Your task to perform on an android device: Go to battery settings Image 0: 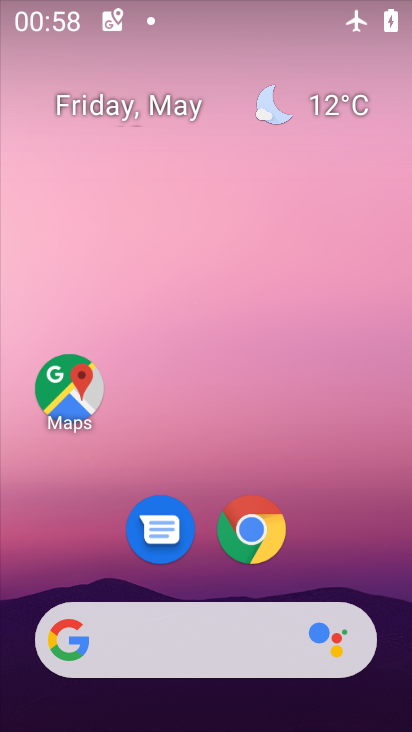
Step 0: drag from (327, 443) to (340, 290)
Your task to perform on an android device: Go to battery settings Image 1: 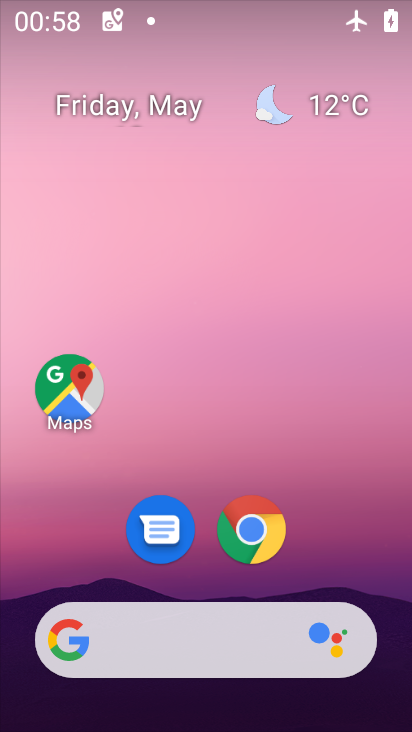
Step 1: drag from (315, 578) to (316, 113)
Your task to perform on an android device: Go to battery settings Image 2: 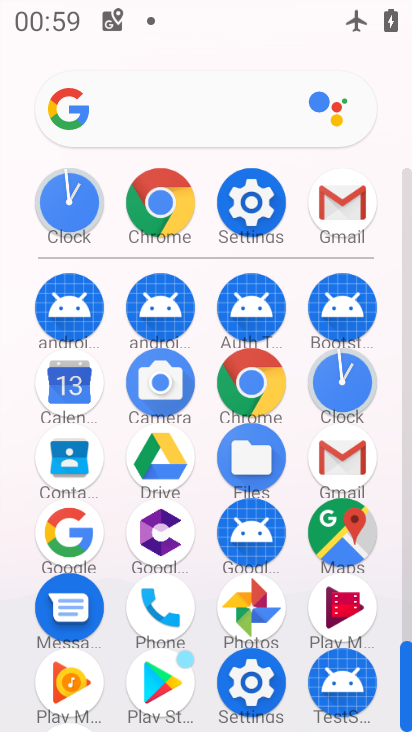
Step 2: click (254, 671)
Your task to perform on an android device: Go to battery settings Image 3: 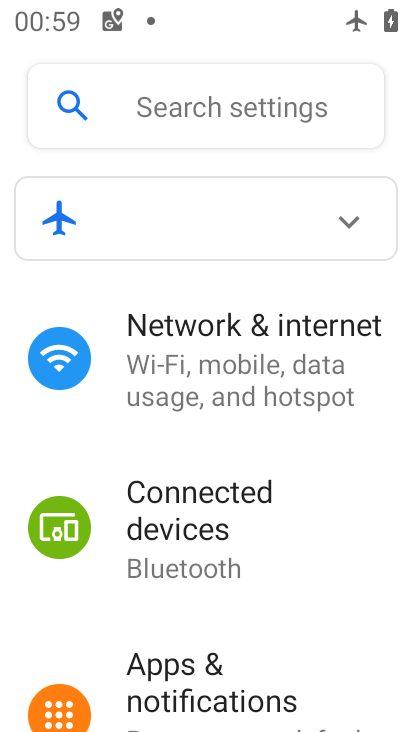
Step 3: drag from (237, 633) to (287, 158)
Your task to perform on an android device: Go to battery settings Image 4: 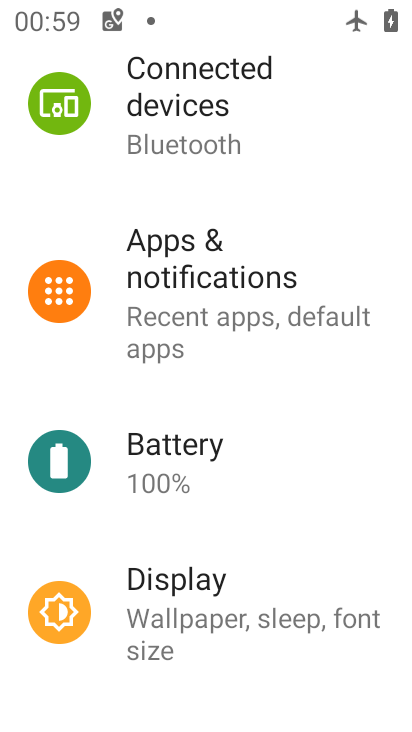
Step 4: drag from (228, 584) to (283, 170)
Your task to perform on an android device: Go to battery settings Image 5: 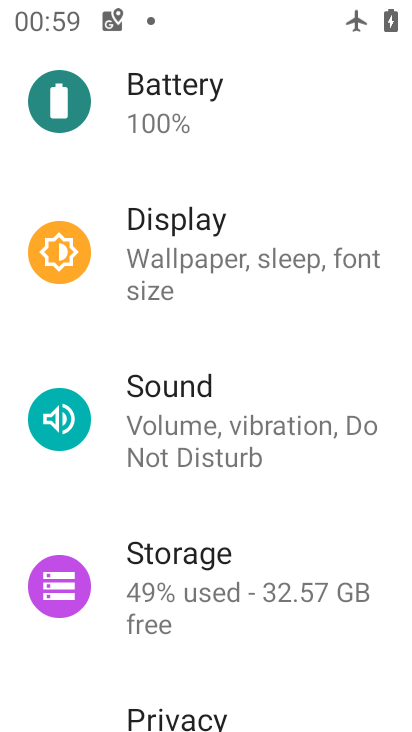
Step 5: click (189, 117)
Your task to perform on an android device: Go to battery settings Image 6: 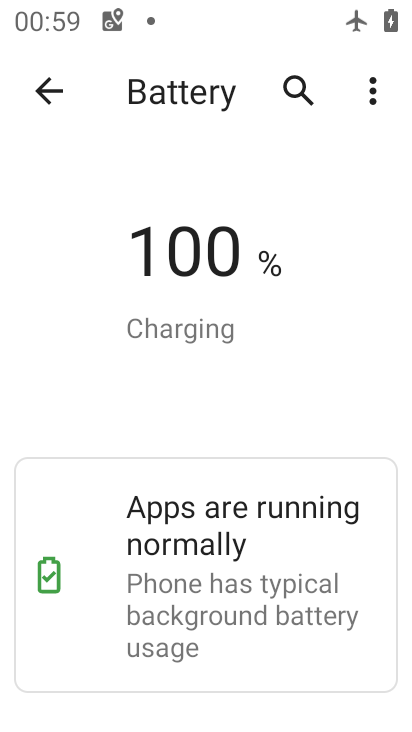
Step 6: task complete